Your task to perform on an android device: What is the news today? Image 0: 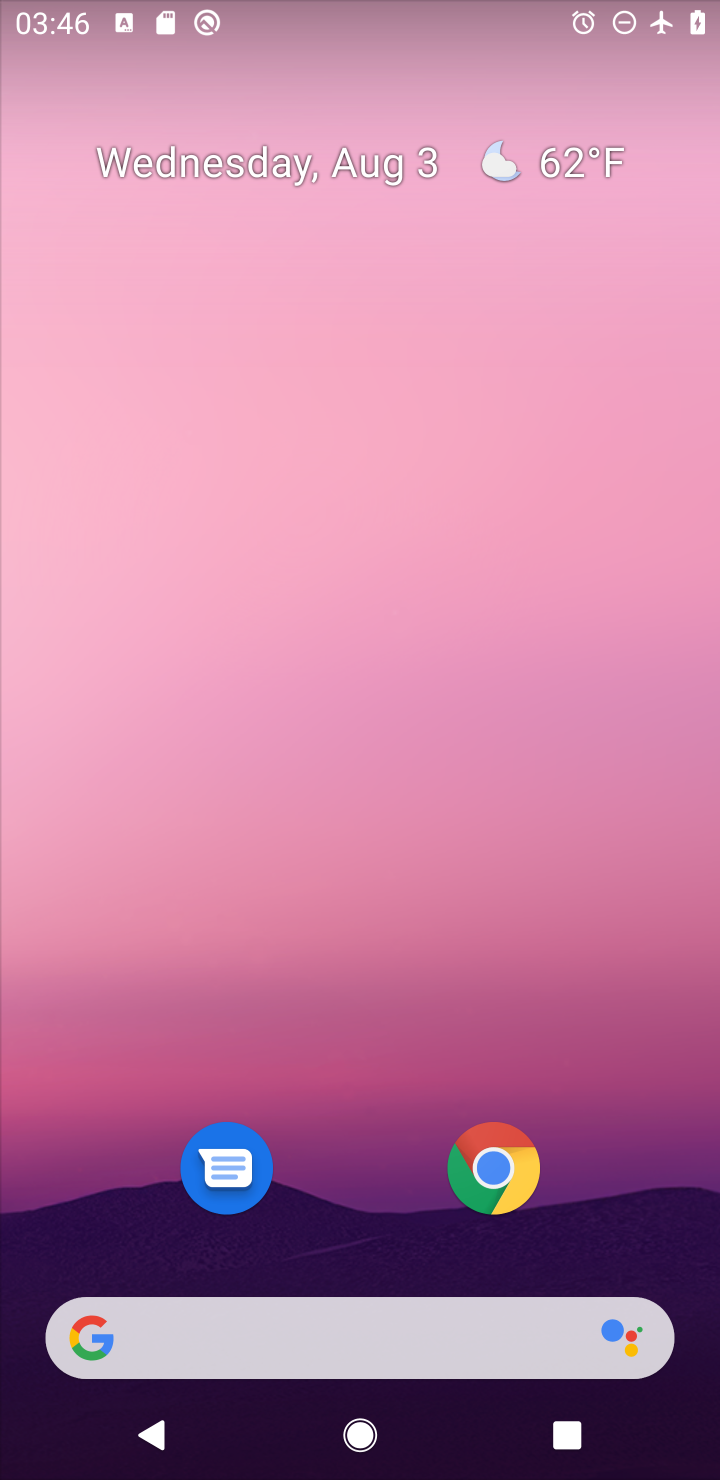
Step 0: drag from (14, 600) to (697, 601)
Your task to perform on an android device: What is the news today? Image 1: 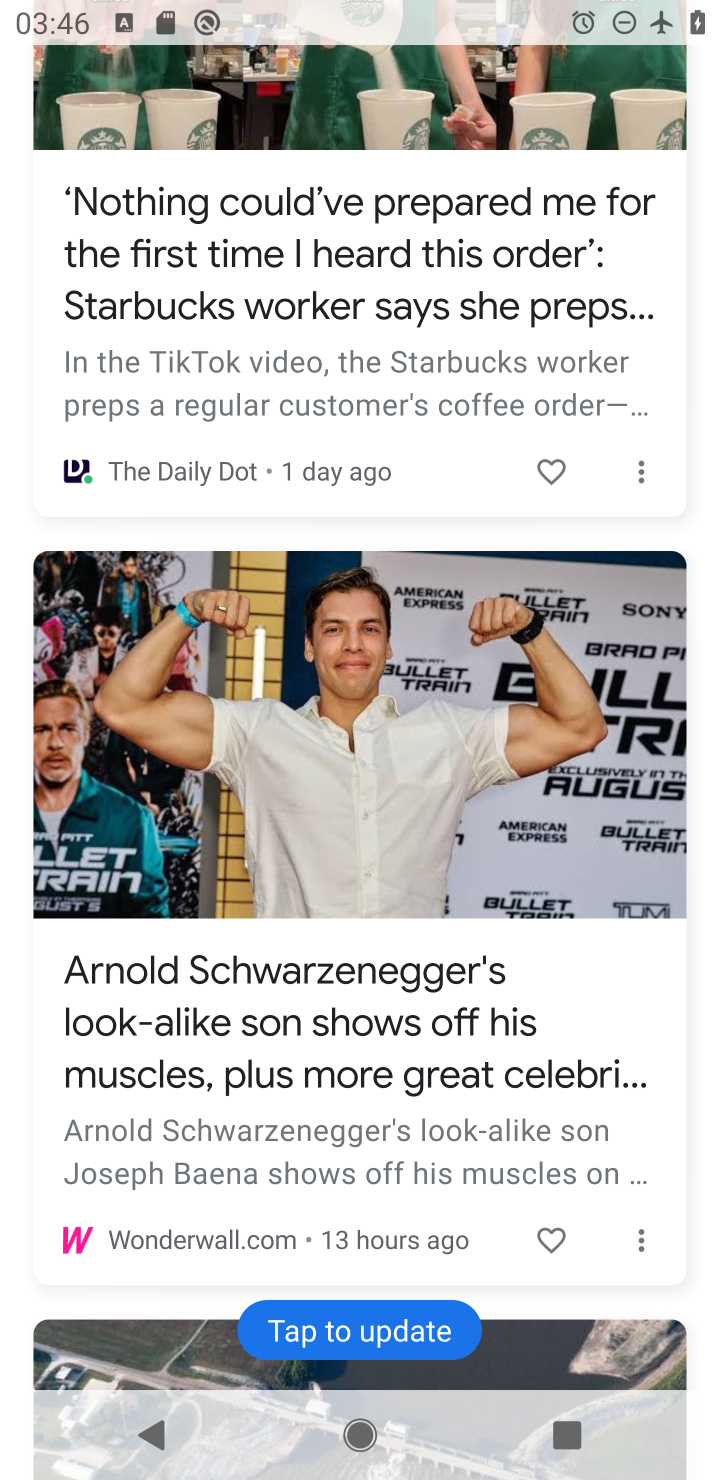
Step 1: task complete